Your task to perform on an android device: change the clock display to show seconds Image 0: 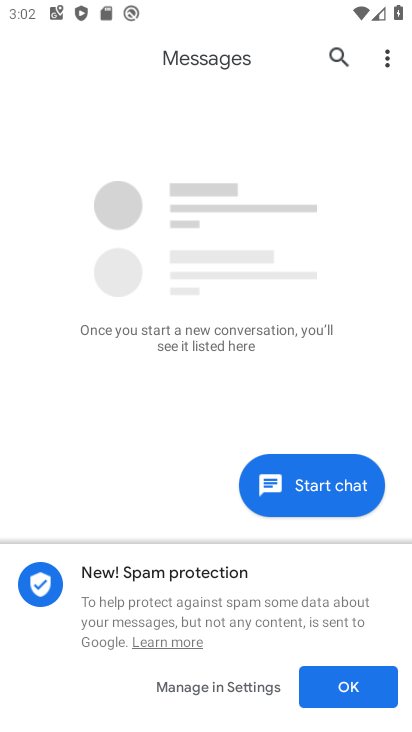
Step 0: press home button
Your task to perform on an android device: change the clock display to show seconds Image 1: 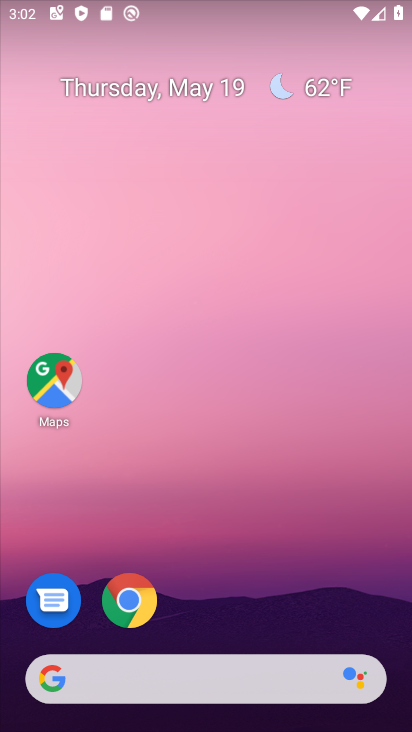
Step 1: drag from (11, 521) to (209, 140)
Your task to perform on an android device: change the clock display to show seconds Image 2: 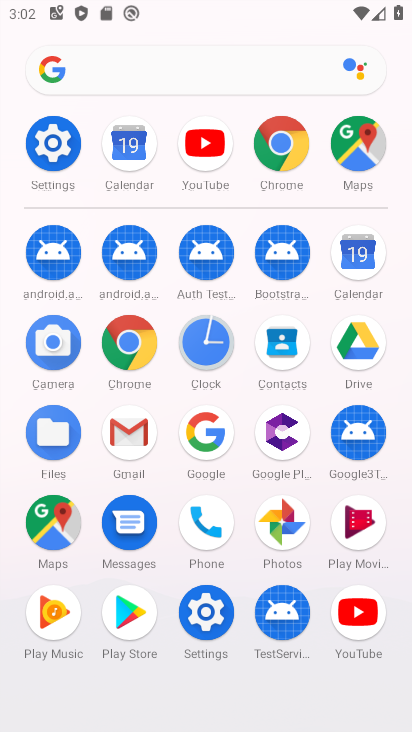
Step 2: click (215, 342)
Your task to perform on an android device: change the clock display to show seconds Image 3: 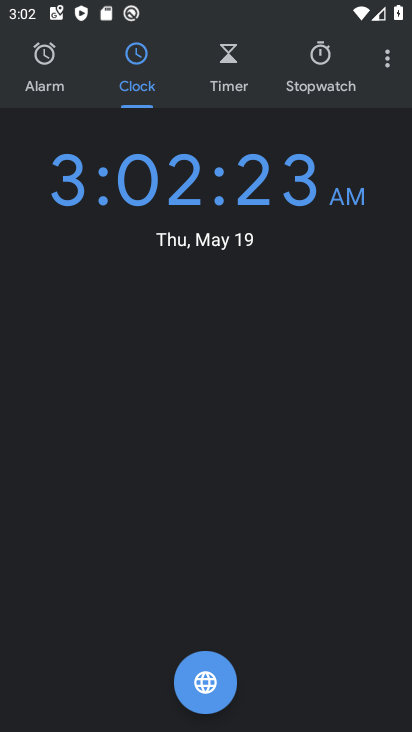
Step 3: click (387, 55)
Your task to perform on an android device: change the clock display to show seconds Image 4: 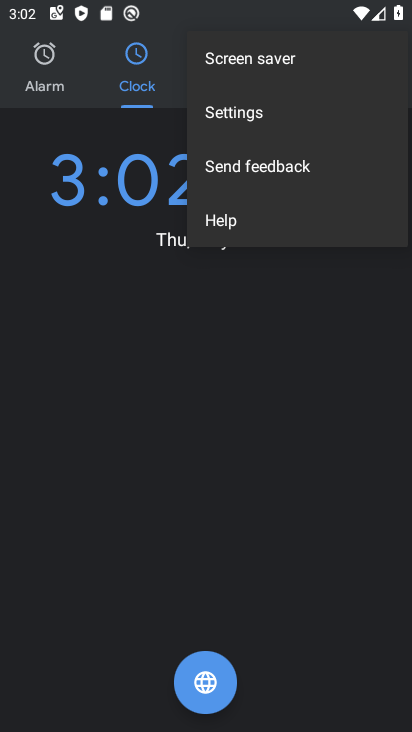
Step 4: click (296, 108)
Your task to perform on an android device: change the clock display to show seconds Image 5: 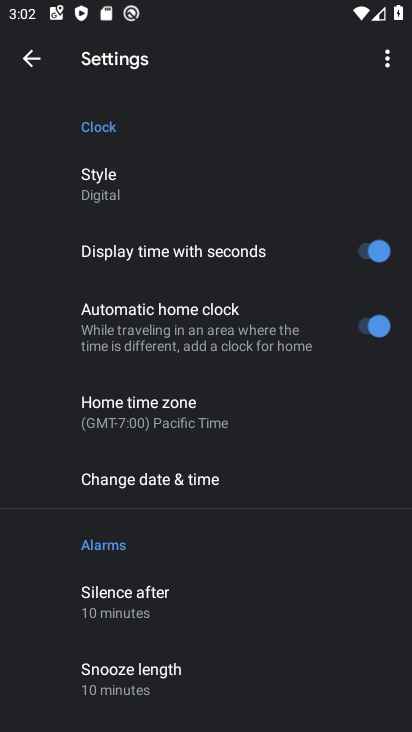
Step 5: task complete